Your task to perform on an android device: read, delete, or share a saved page in the chrome app Image 0: 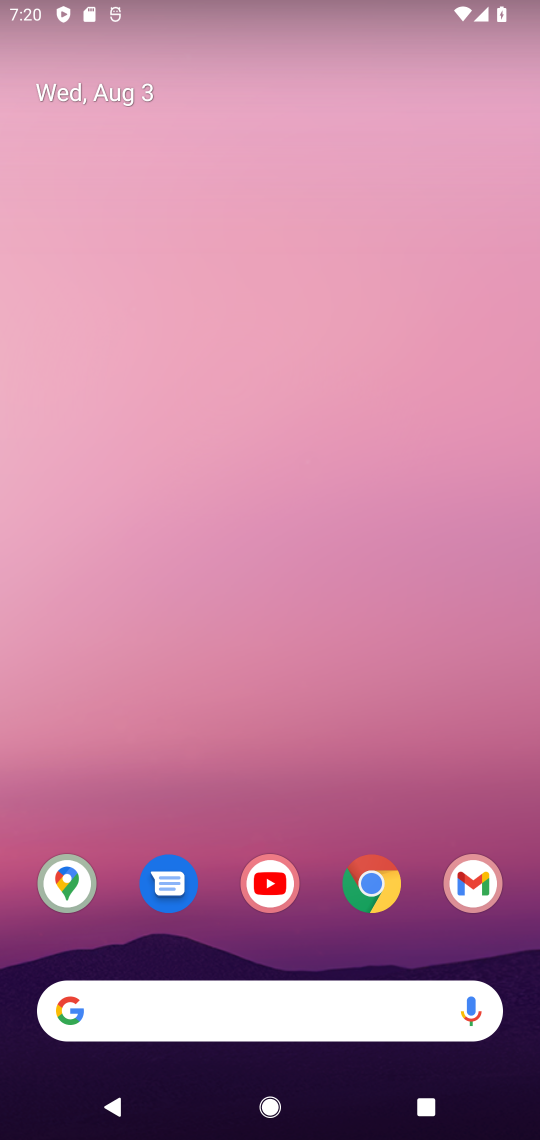
Step 0: drag from (399, 839) to (361, 27)
Your task to perform on an android device: read, delete, or share a saved page in the chrome app Image 1: 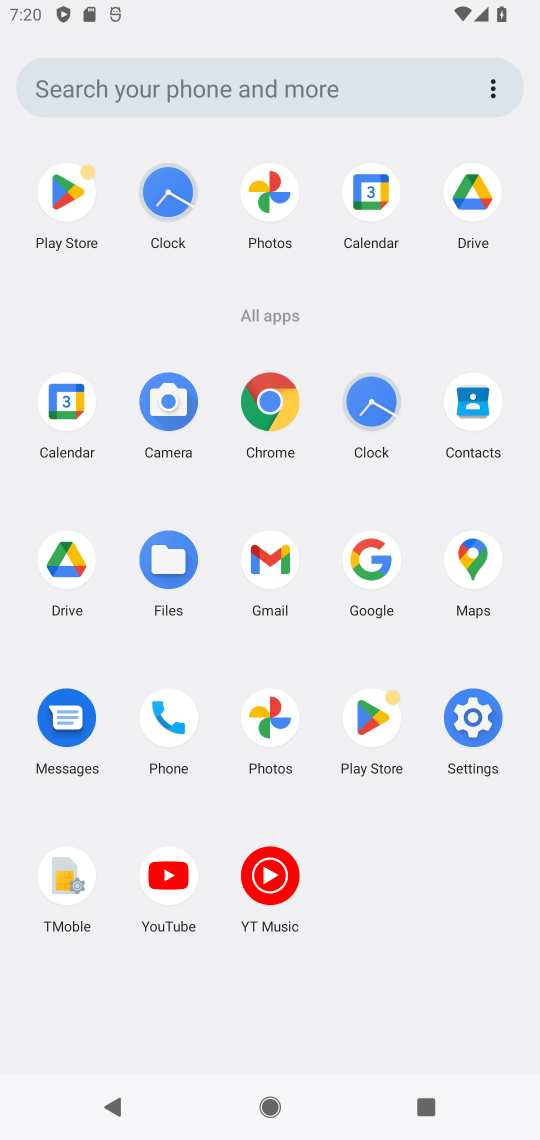
Step 1: click (267, 432)
Your task to perform on an android device: read, delete, or share a saved page in the chrome app Image 2: 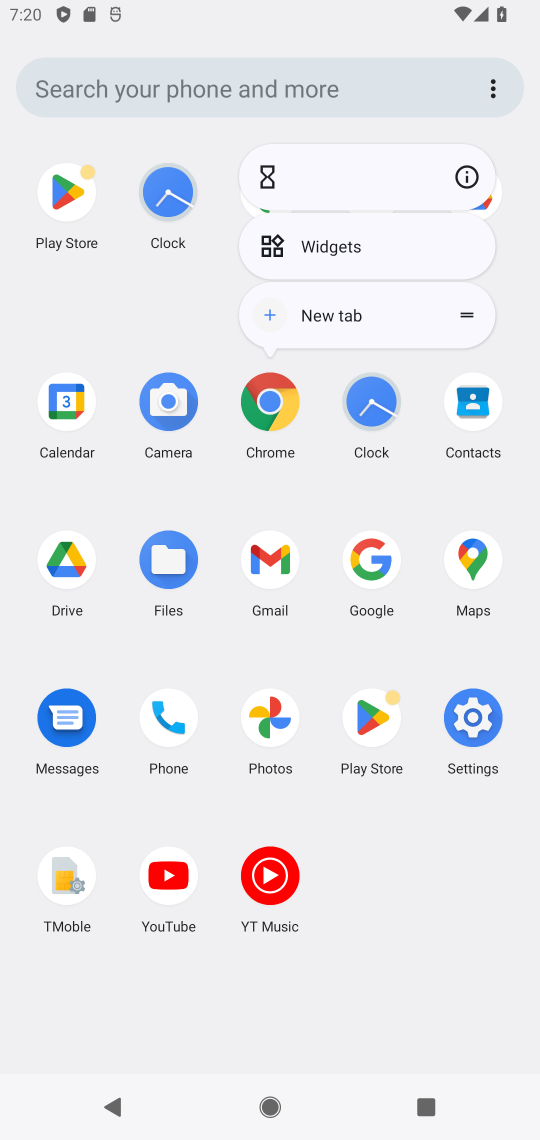
Step 2: click (273, 420)
Your task to perform on an android device: read, delete, or share a saved page in the chrome app Image 3: 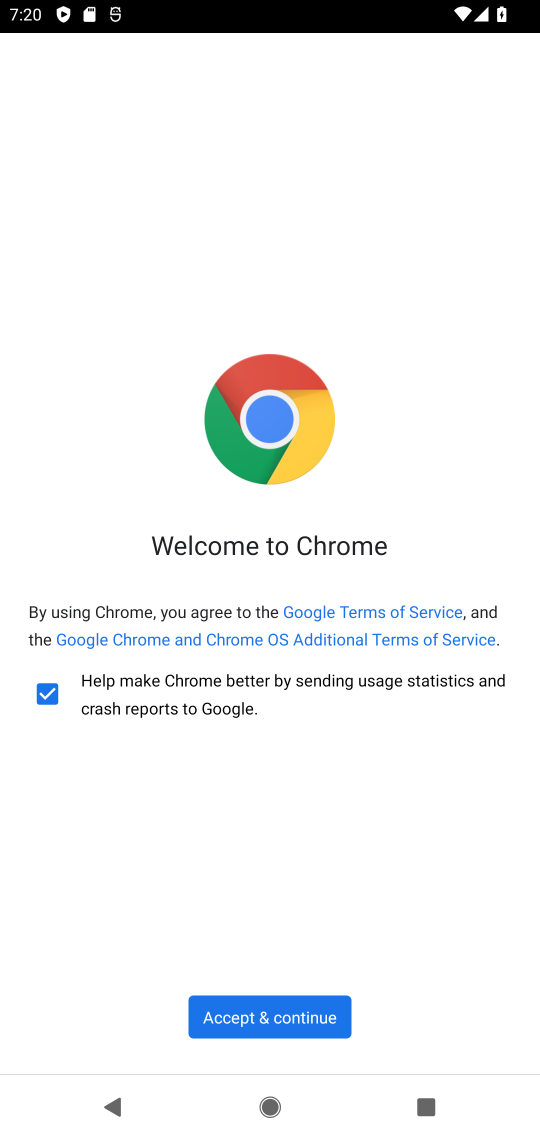
Step 3: click (320, 1009)
Your task to perform on an android device: read, delete, or share a saved page in the chrome app Image 4: 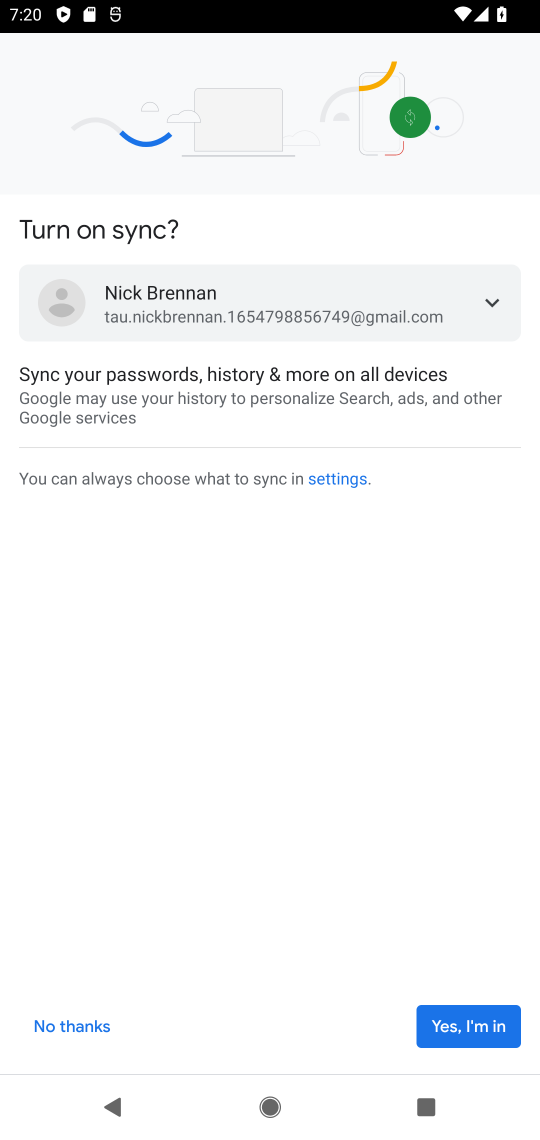
Step 4: click (439, 1028)
Your task to perform on an android device: read, delete, or share a saved page in the chrome app Image 5: 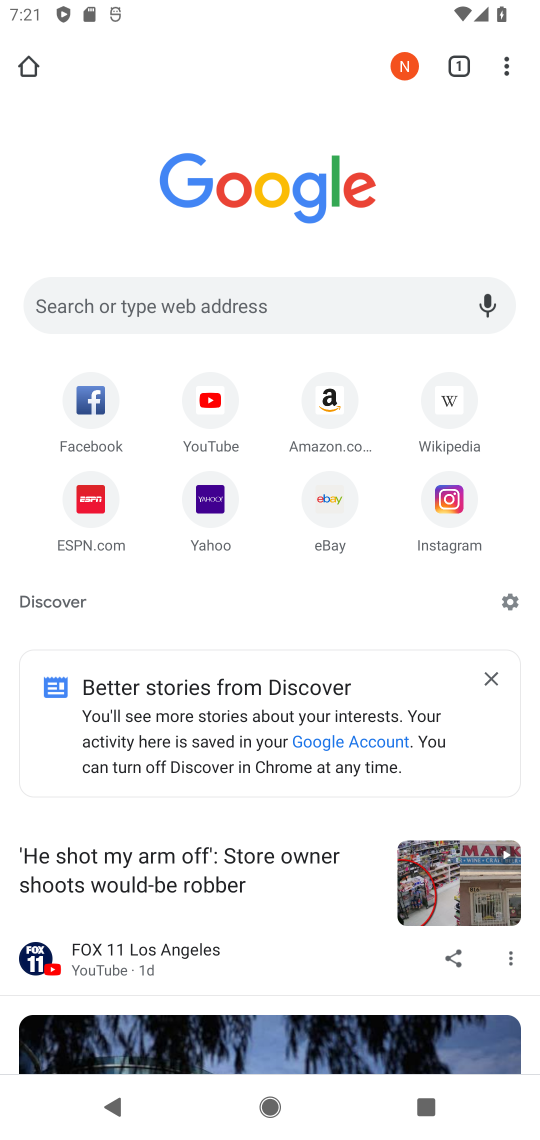
Step 5: click (514, 62)
Your task to perform on an android device: read, delete, or share a saved page in the chrome app Image 6: 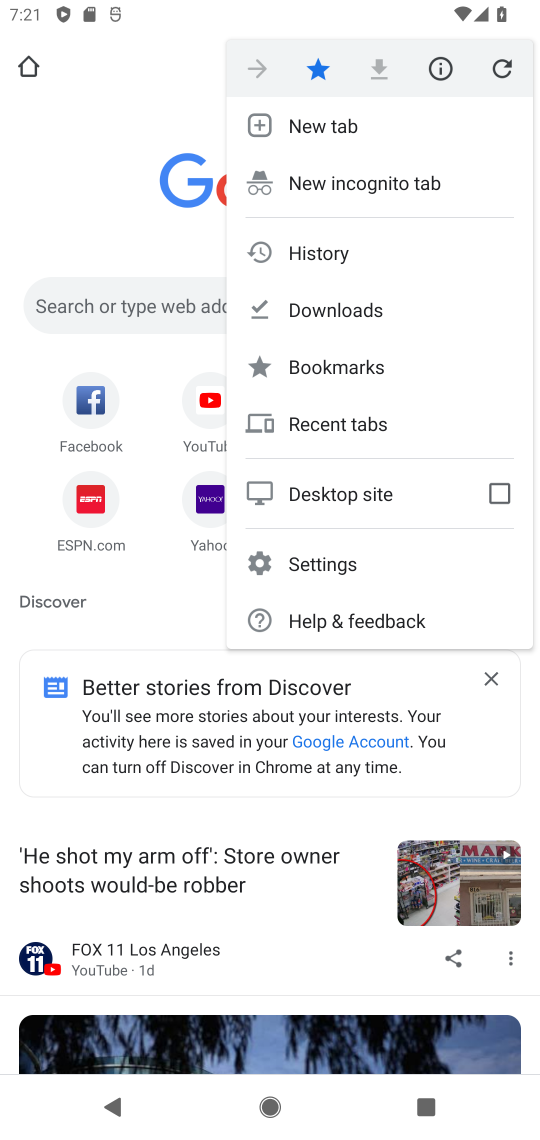
Step 6: click (339, 314)
Your task to perform on an android device: read, delete, or share a saved page in the chrome app Image 7: 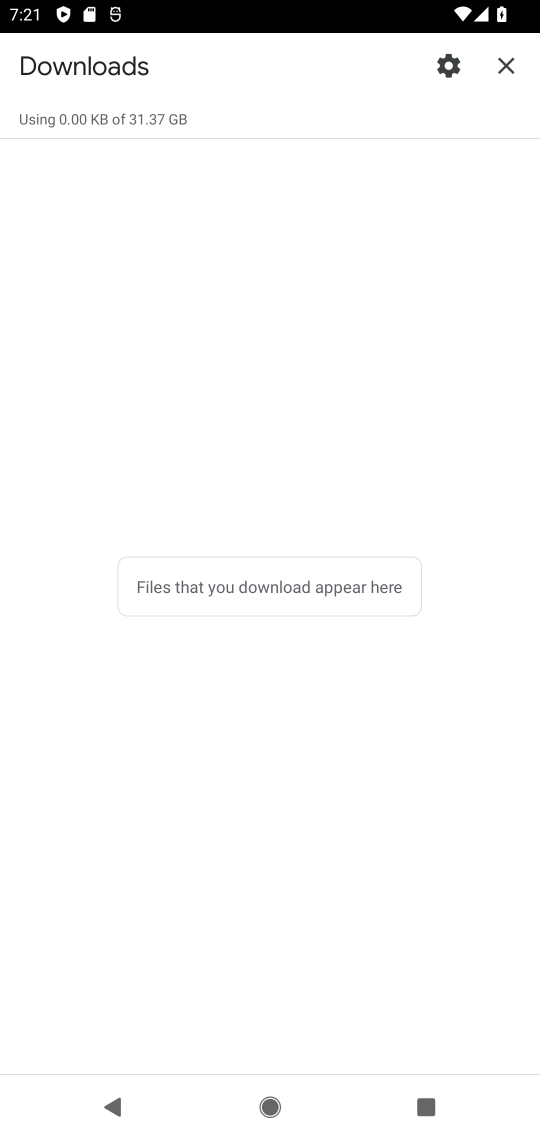
Step 7: click (183, 128)
Your task to perform on an android device: read, delete, or share a saved page in the chrome app Image 8: 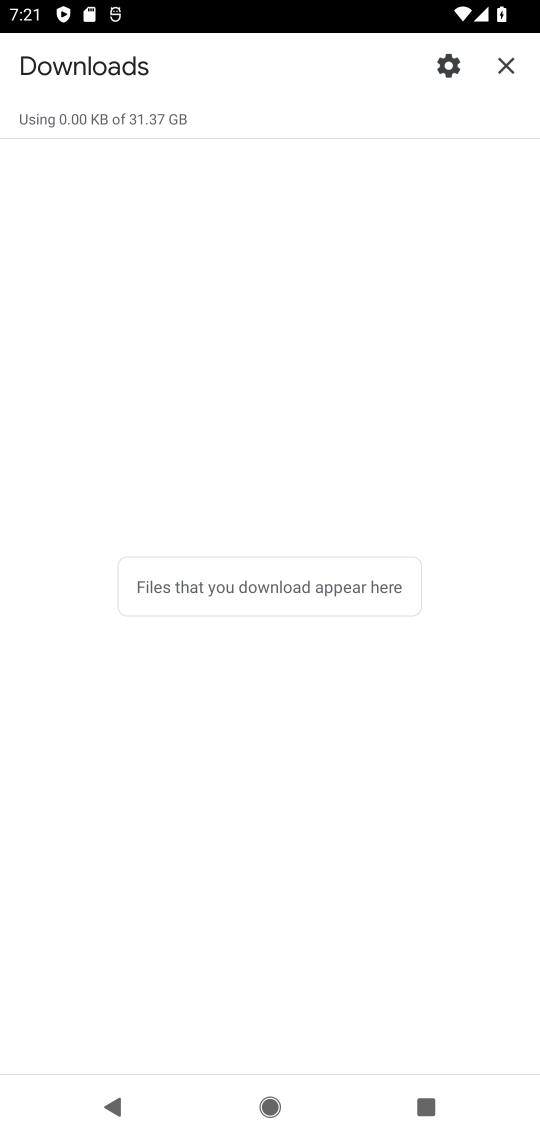
Step 8: click (148, 61)
Your task to perform on an android device: read, delete, or share a saved page in the chrome app Image 9: 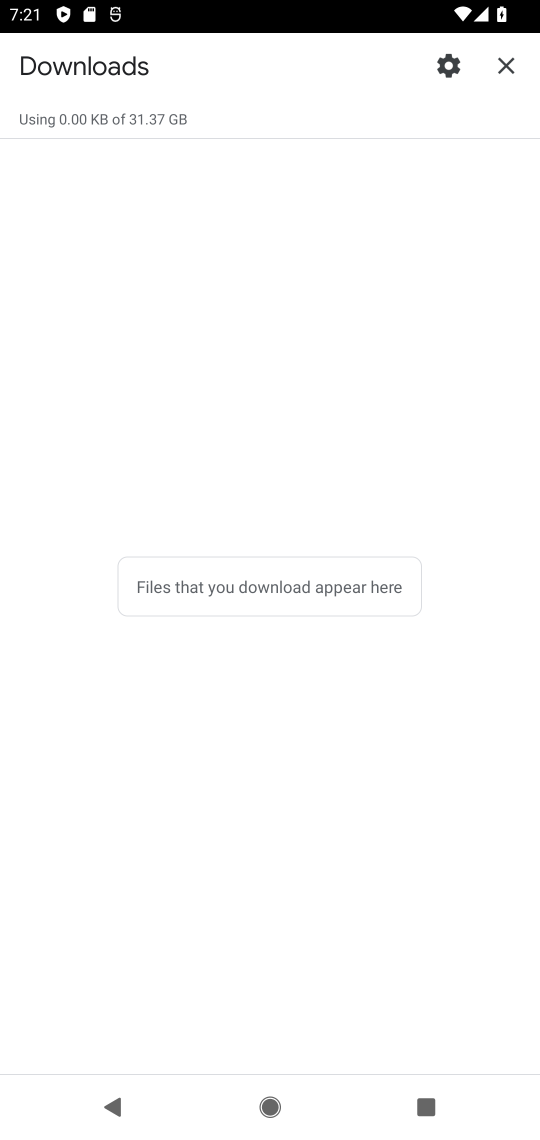
Step 9: click (434, 62)
Your task to perform on an android device: read, delete, or share a saved page in the chrome app Image 10: 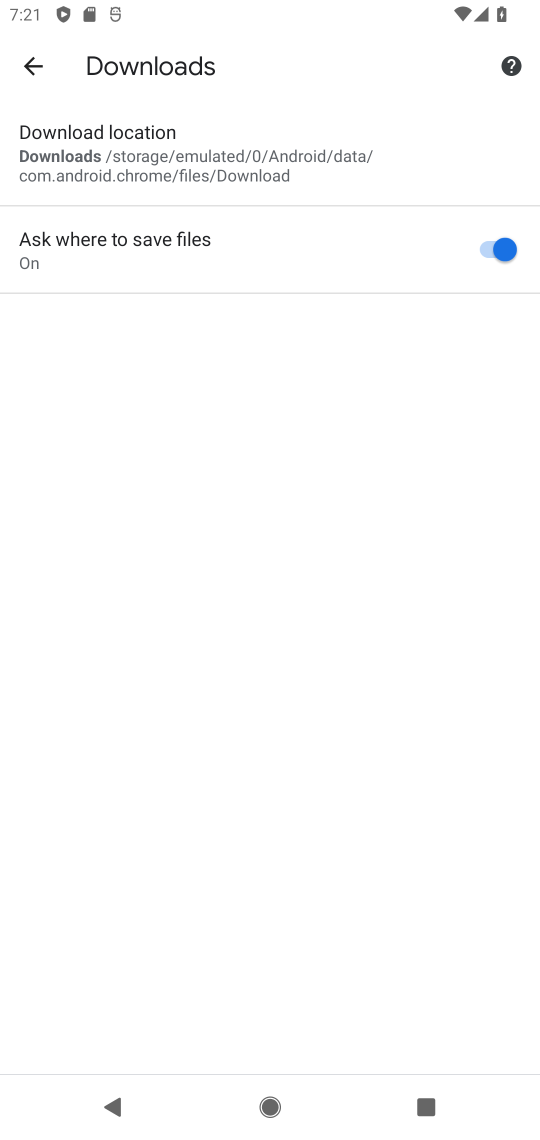
Step 10: task complete